Your task to perform on an android device: set the stopwatch Image 0: 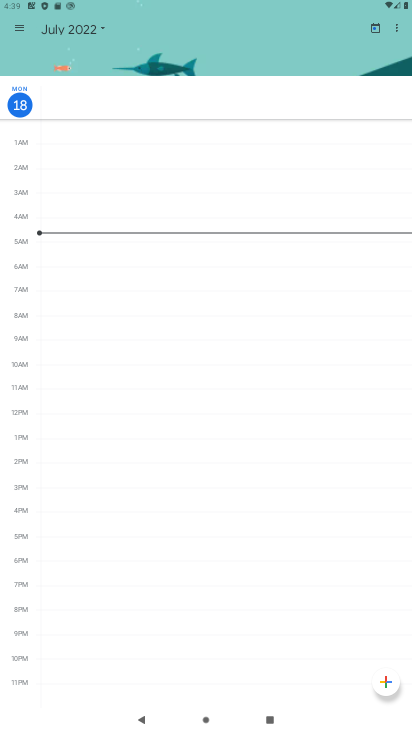
Step 0: press home button
Your task to perform on an android device: set the stopwatch Image 1: 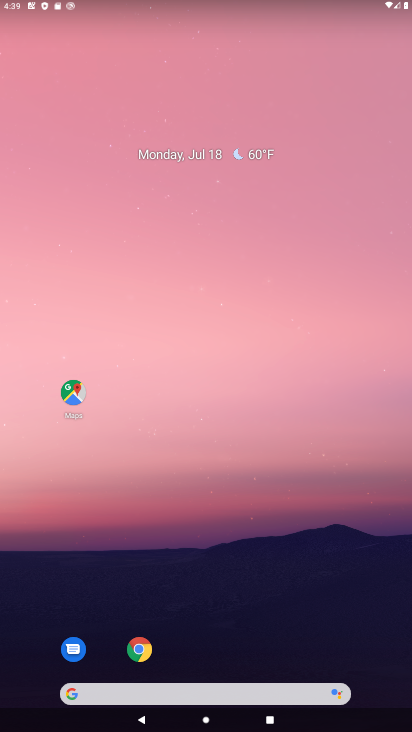
Step 1: drag from (219, 660) to (229, 12)
Your task to perform on an android device: set the stopwatch Image 2: 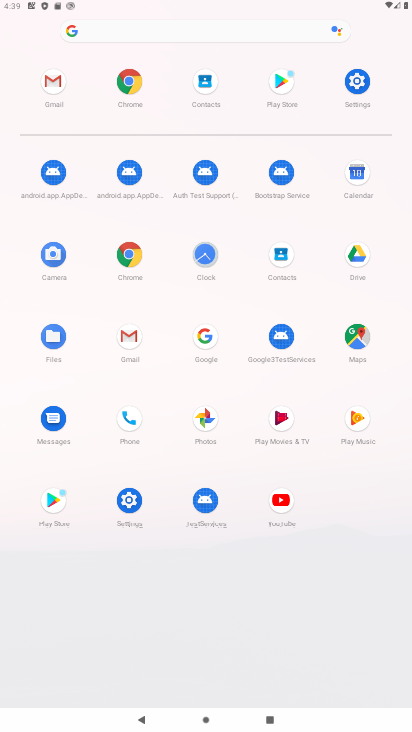
Step 2: click (209, 262)
Your task to perform on an android device: set the stopwatch Image 3: 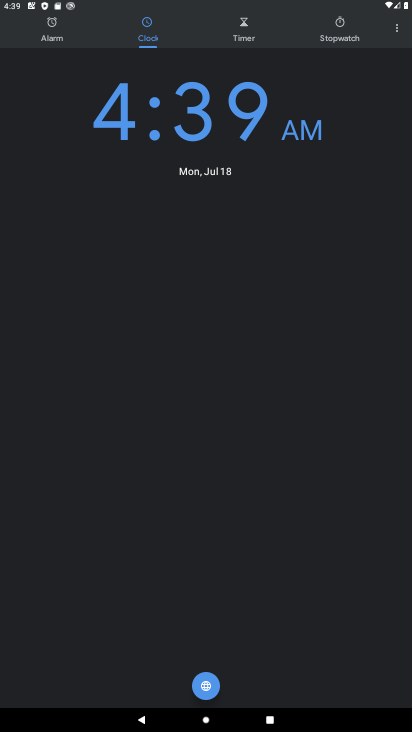
Step 3: click (340, 29)
Your task to perform on an android device: set the stopwatch Image 4: 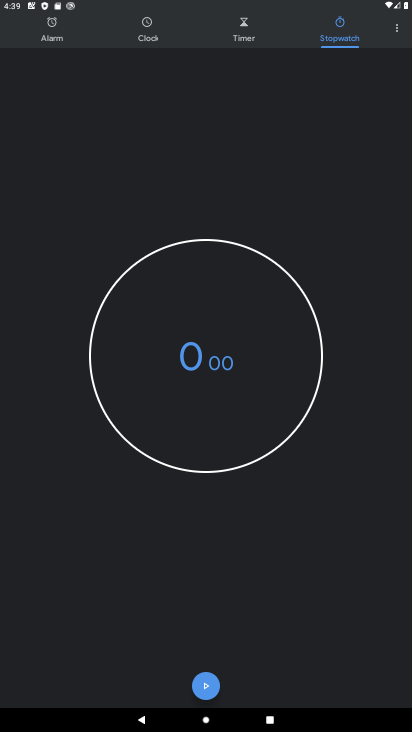
Step 4: click (195, 682)
Your task to perform on an android device: set the stopwatch Image 5: 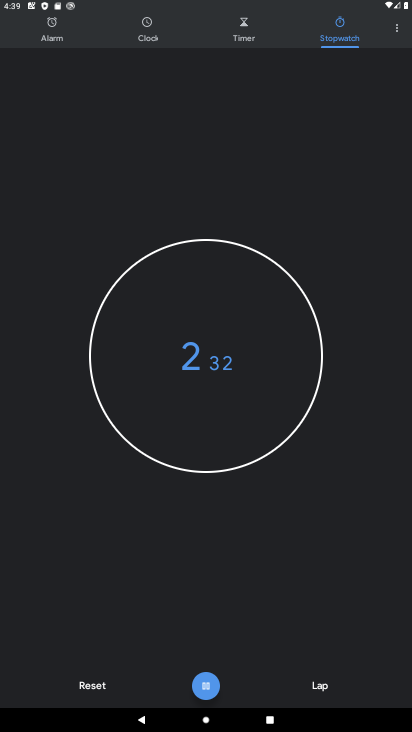
Step 5: task complete